Your task to perform on an android device: Go to Amazon Image 0: 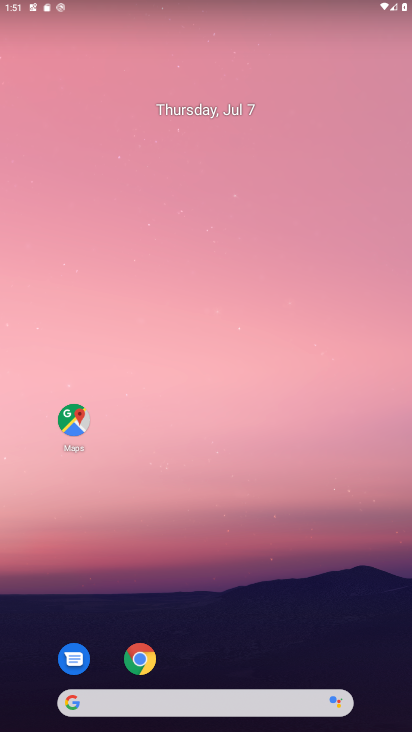
Step 0: drag from (189, 652) to (130, 4)
Your task to perform on an android device: Go to Amazon Image 1: 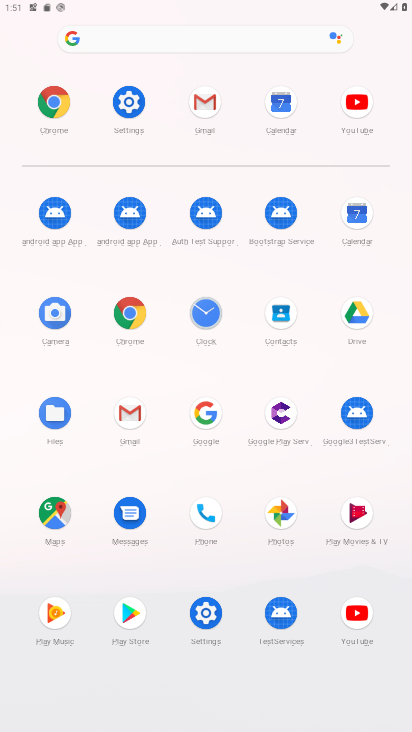
Step 1: click (128, 313)
Your task to perform on an android device: Go to Amazon Image 2: 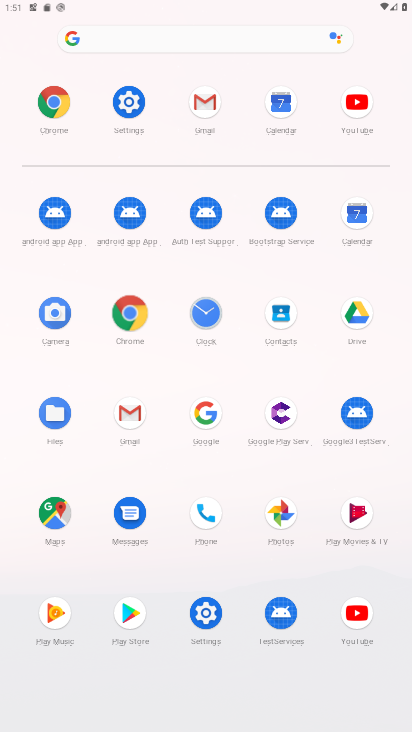
Step 2: click (128, 313)
Your task to perform on an android device: Go to Amazon Image 3: 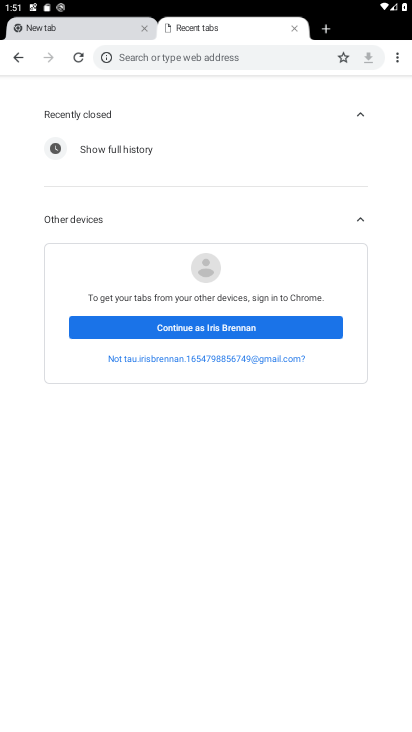
Step 3: click (325, 36)
Your task to perform on an android device: Go to Amazon Image 4: 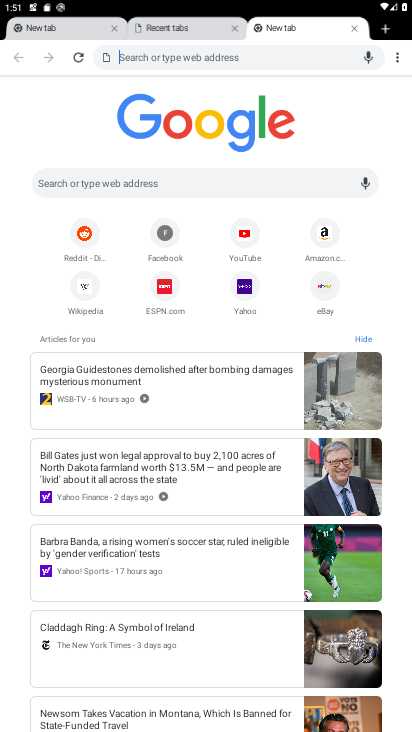
Step 4: click (322, 218)
Your task to perform on an android device: Go to Amazon Image 5: 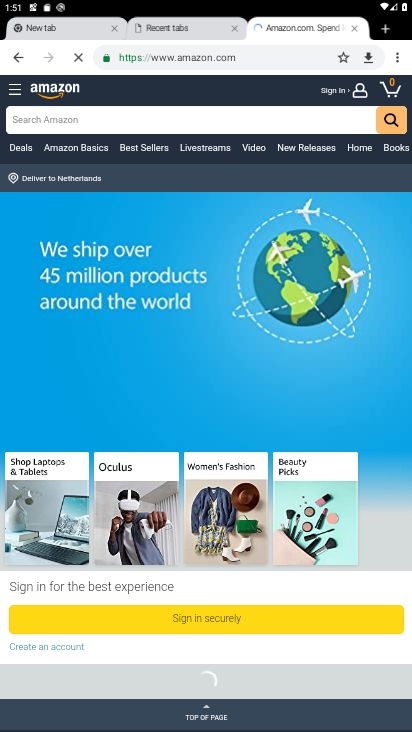
Step 5: task complete